Your task to perform on an android device: Clear the cart on walmart. Search for lenovo thinkpad on walmart, select the first entry, add it to the cart, then select checkout. Image 0: 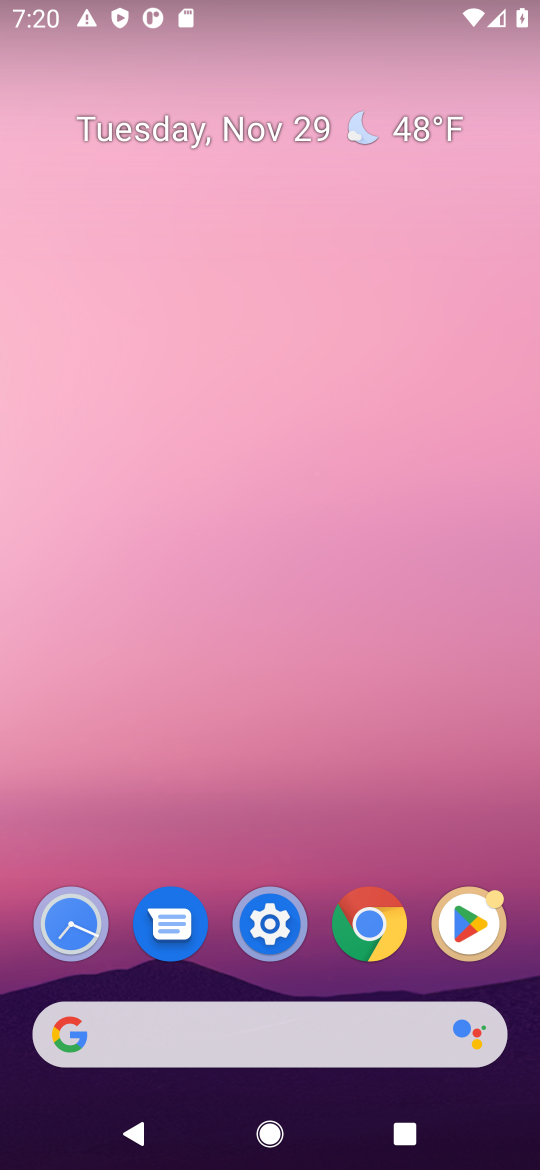
Step 0: click (228, 1055)
Your task to perform on an android device: Clear the cart on walmart. Search for lenovo thinkpad on walmart, select the first entry, add it to the cart, then select checkout. Image 1: 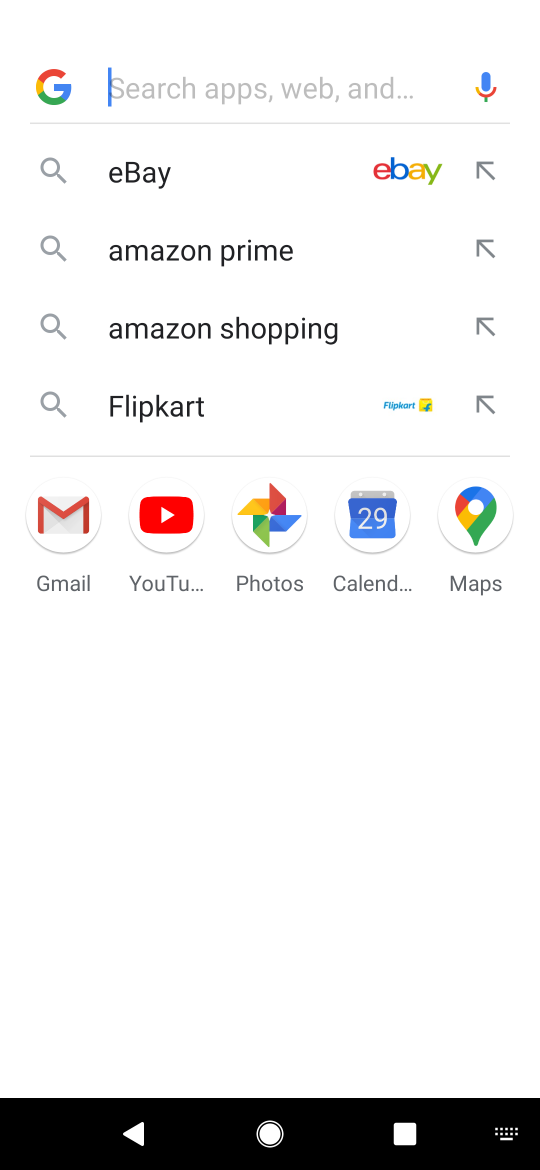
Step 1: type "walmart"
Your task to perform on an android device: Clear the cart on walmart. Search for lenovo thinkpad on walmart, select the first entry, add it to the cart, then select checkout. Image 2: 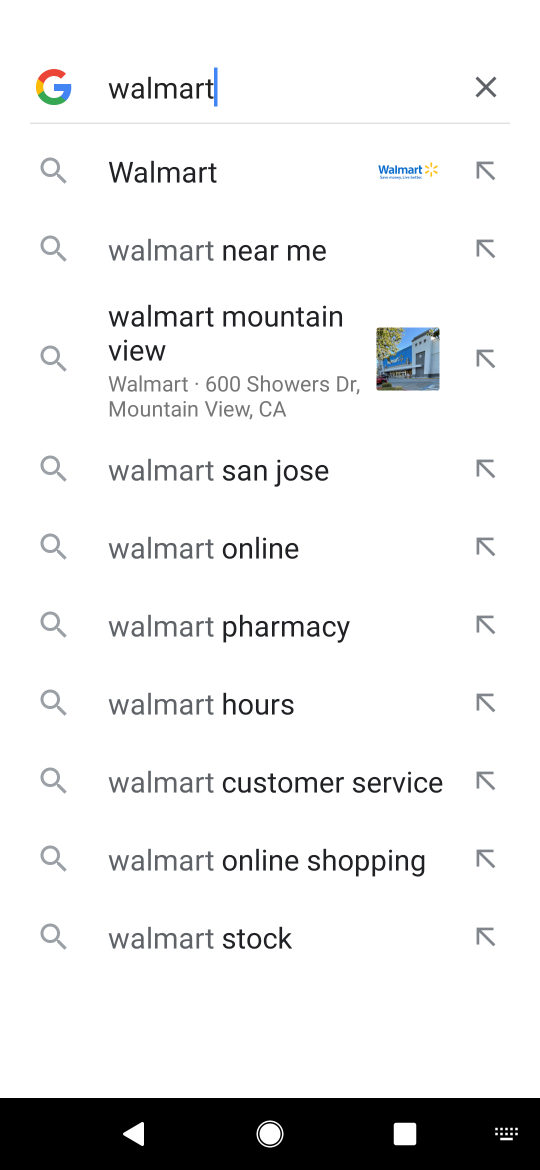
Step 2: click (193, 163)
Your task to perform on an android device: Clear the cart on walmart. Search for lenovo thinkpad on walmart, select the first entry, add it to the cart, then select checkout. Image 3: 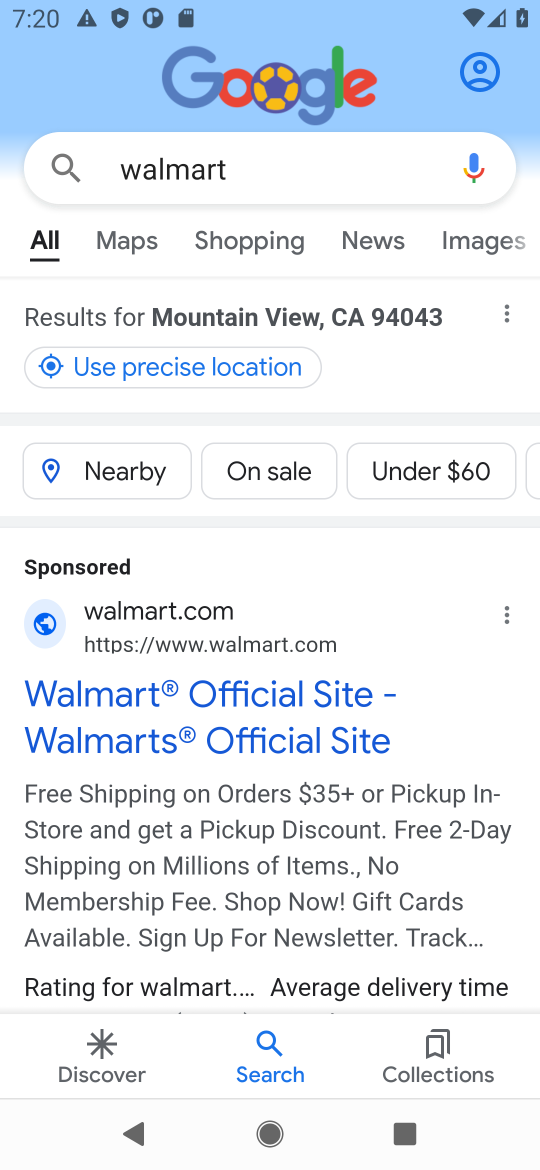
Step 3: click (93, 690)
Your task to perform on an android device: Clear the cart on walmart. Search for lenovo thinkpad on walmart, select the first entry, add it to the cart, then select checkout. Image 4: 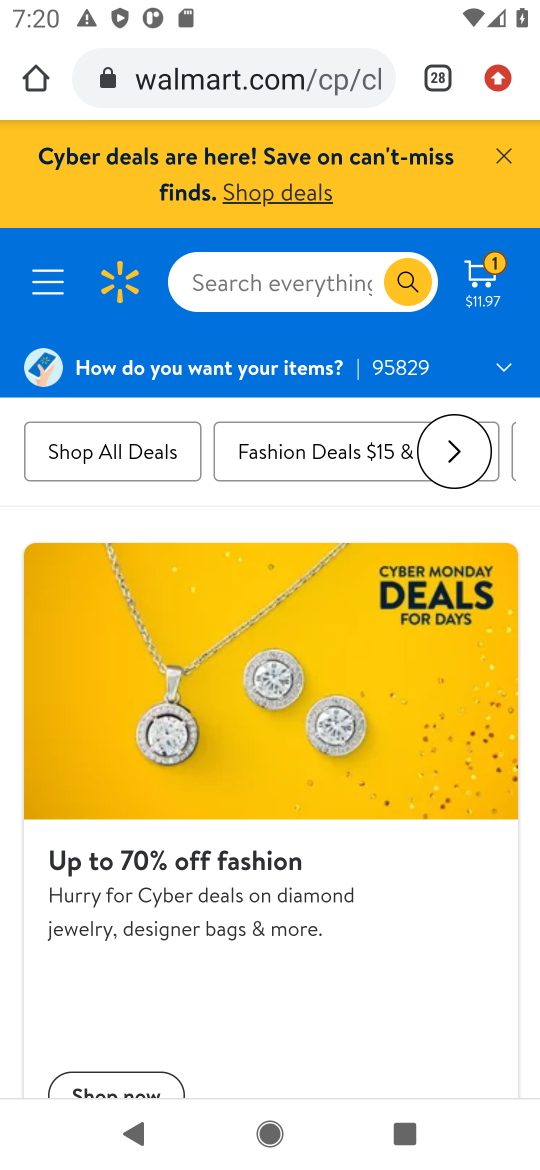
Step 4: click (196, 301)
Your task to perform on an android device: Clear the cart on walmart. Search for lenovo thinkpad on walmart, select the first entry, add it to the cart, then select checkout. Image 5: 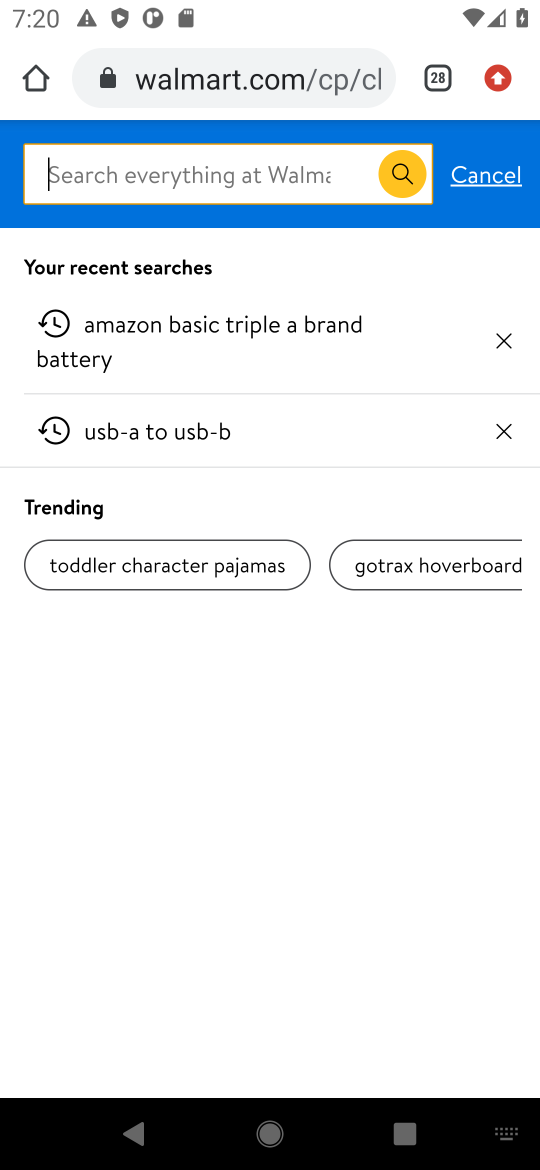
Step 5: type "lenovo thinkpad"
Your task to perform on an android device: Clear the cart on walmart. Search for lenovo thinkpad on walmart, select the first entry, add it to the cart, then select checkout. Image 6: 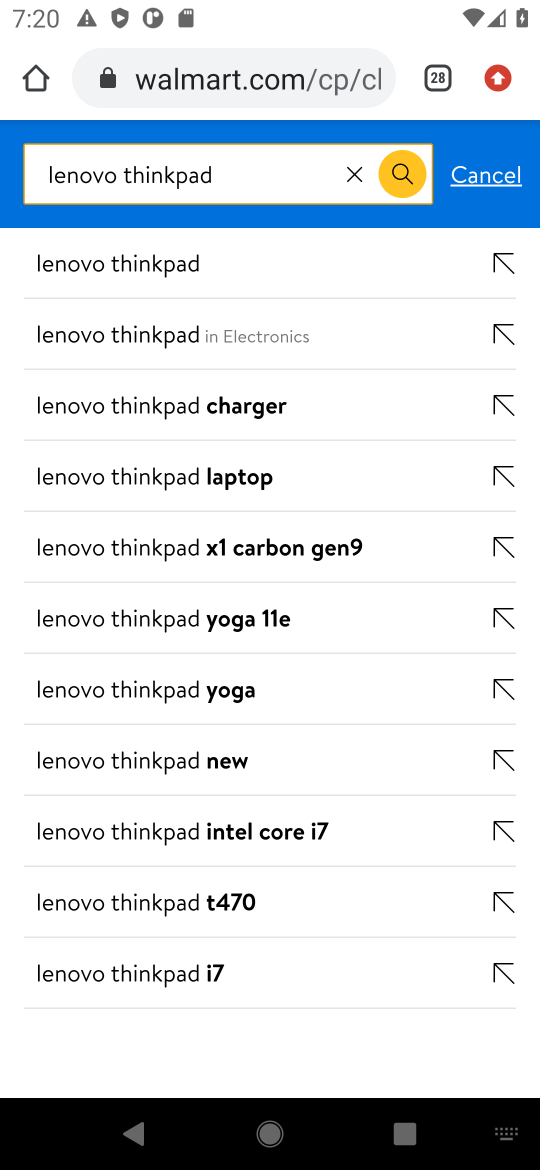
Step 6: click (205, 274)
Your task to perform on an android device: Clear the cart on walmart. Search for lenovo thinkpad on walmart, select the first entry, add it to the cart, then select checkout. Image 7: 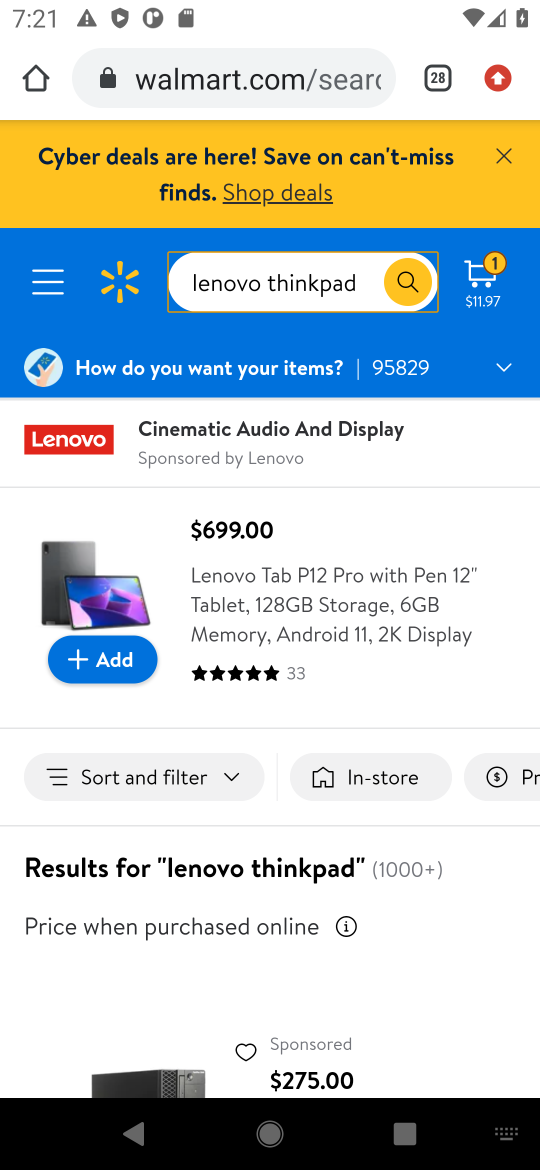
Step 7: click (215, 500)
Your task to perform on an android device: Clear the cart on walmart. Search for lenovo thinkpad on walmart, select the first entry, add it to the cart, then select checkout. Image 8: 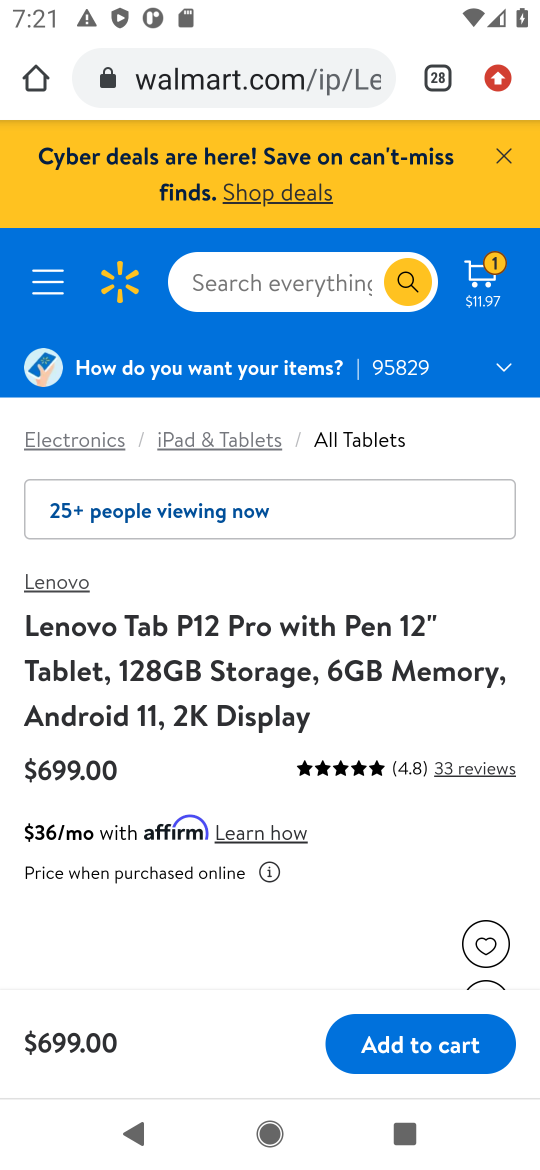
Step 8: click (365, 1069)
Your task to perform on an android device: Clear the cart on walmart. Search for lenovo thinkpad on walmart, select the first entry, add it to the cart, then select checkout. Image 9: 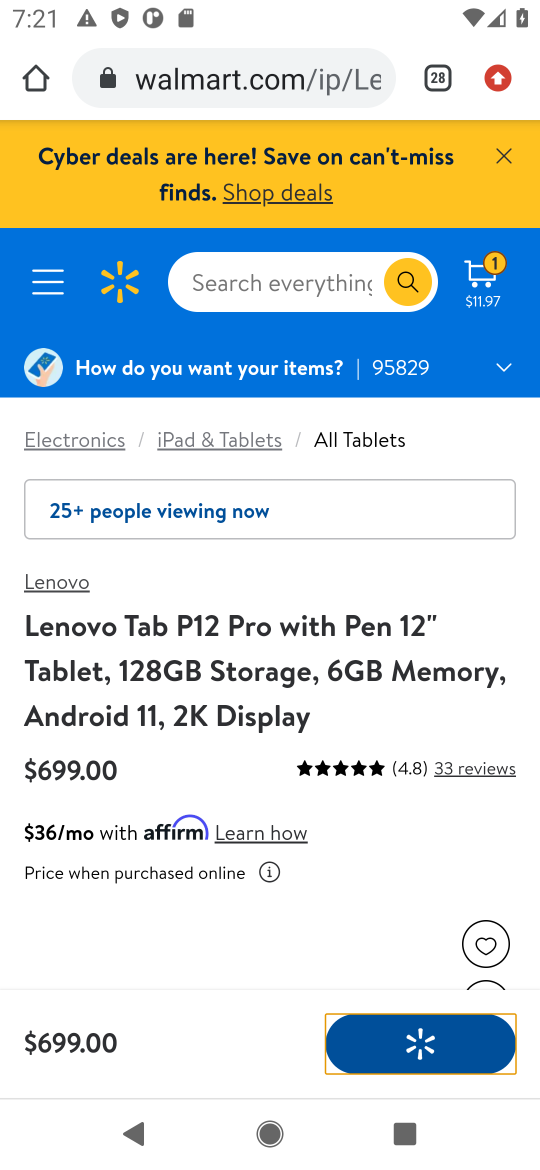
Step 9: task complete